Your task to perform on an android device: toggle notification dots Image 0: 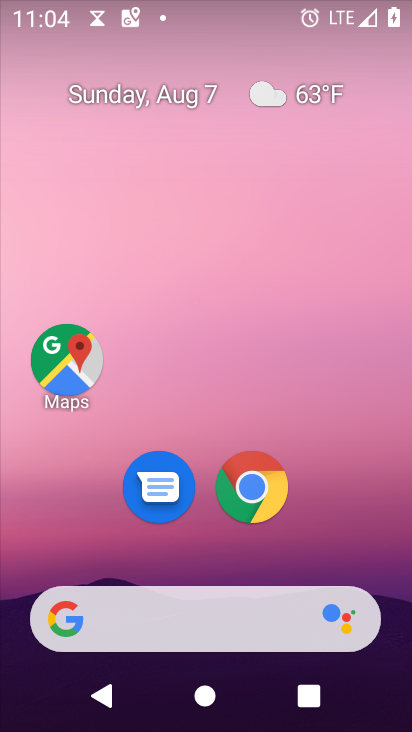
Step 0: drag from (398, 701) to (385, 107)
Your task to perform on an android device: toggle notification dots Image 1: 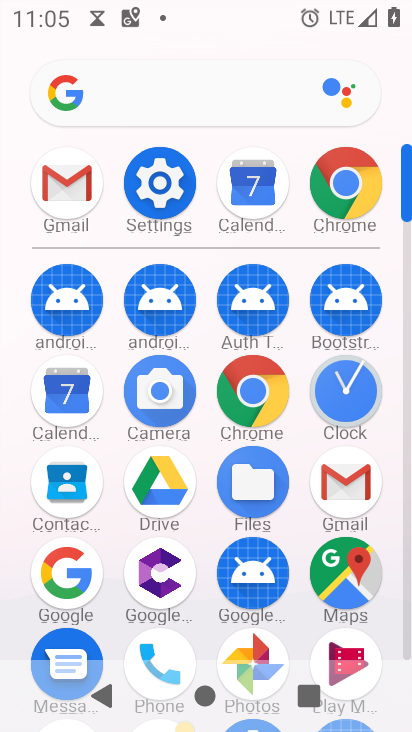
Step 1: click (152, 187)
Your task to perform on an android device: toggle notification dots Image 2: 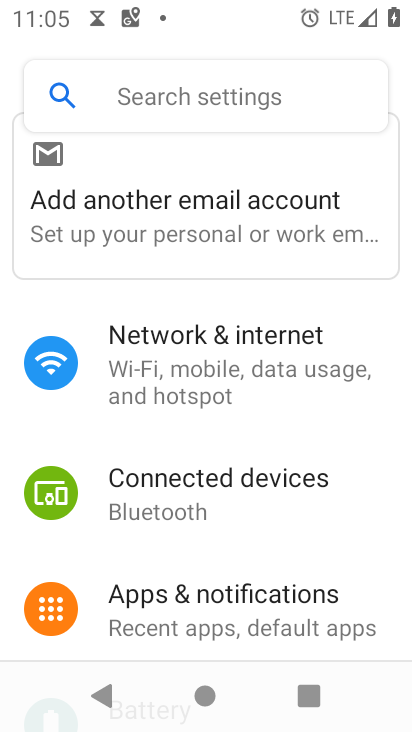
Step 2: drag from (361, 605) to (284, 104)
Your task to perform on an android device: toggle notification dots Image 3: 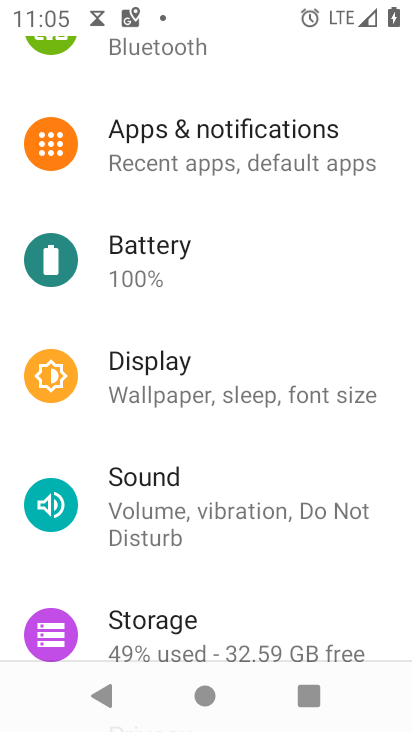
Step 3: click (204, 126)
Your task to perform on an android device: toggle notification dots Image 4: 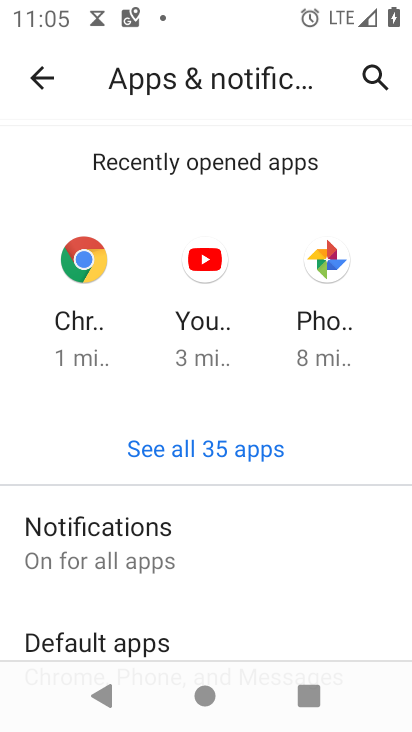
Step 4: drag from (255, 552) to (272, 175)
Your task to perform on an android device: toggle notification dots Image 5: 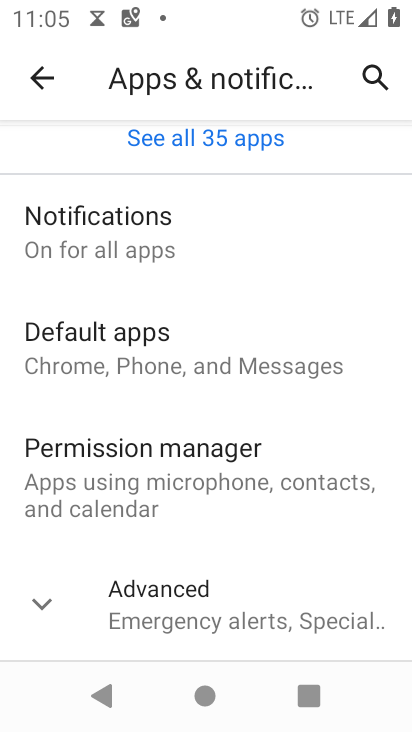
Step 5: click (29, 616)
Your task to perform on an android device: toggle notification dots Image 6: 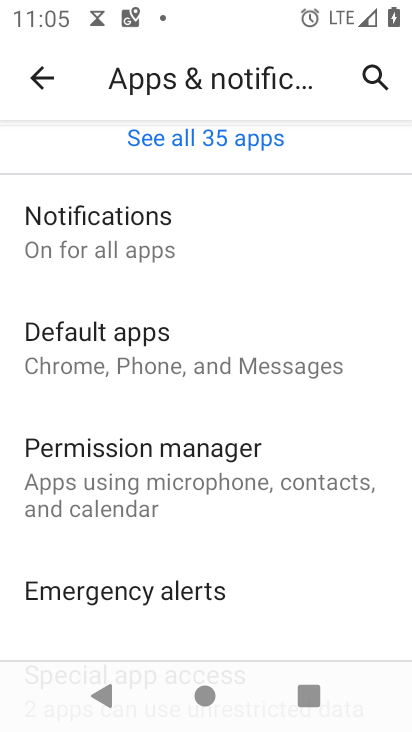
Step 6: drag from (264, 619) to (226, 147)
Your task to perform on an android device: toggle notification dots Image 7: 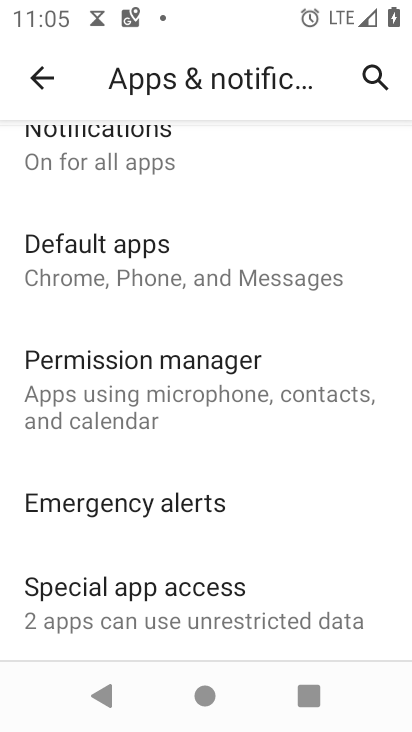
Step 7: drag from (265, 580) to (265, 261)
Your task to perform on an android device: toggle notification dots Image 8: 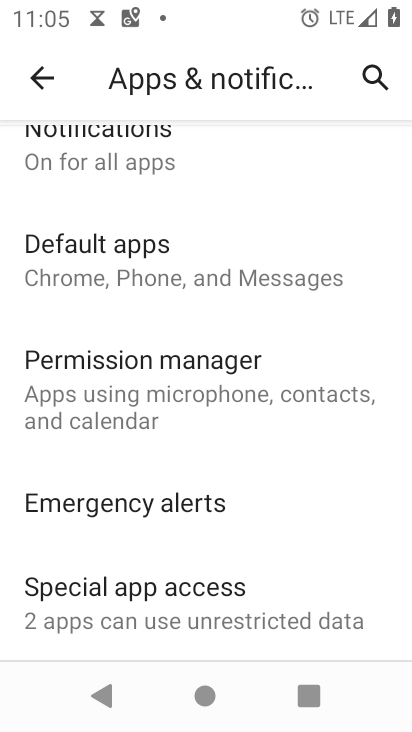
Step 8: drag from (245, 186) to (273, 509)
Your task to perform on an android device: toggle notification dots Image 9: 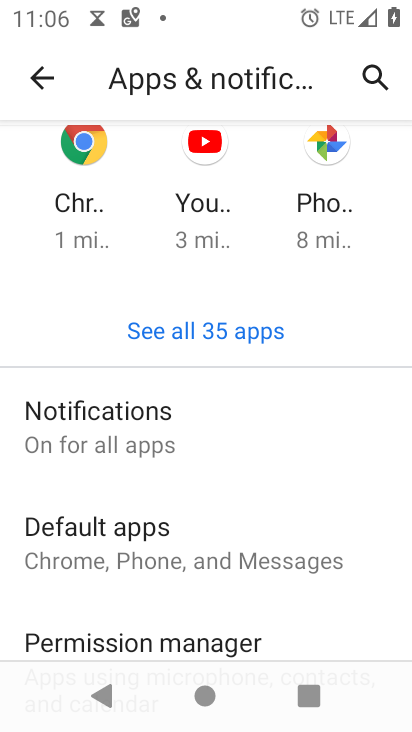
Step 9: click (104, 419)
Your task to perform on an android device: toggle notification dots Image 10: 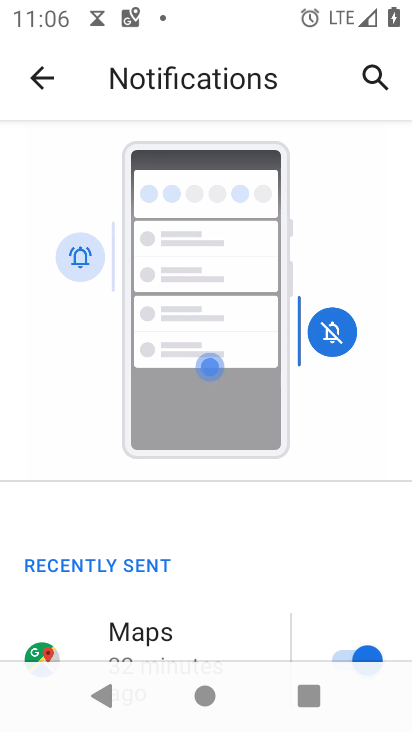
Step 10: drag from (251, 597) to (265, 125)
Your task to perform on an android device: toggle notification dots Image 11: 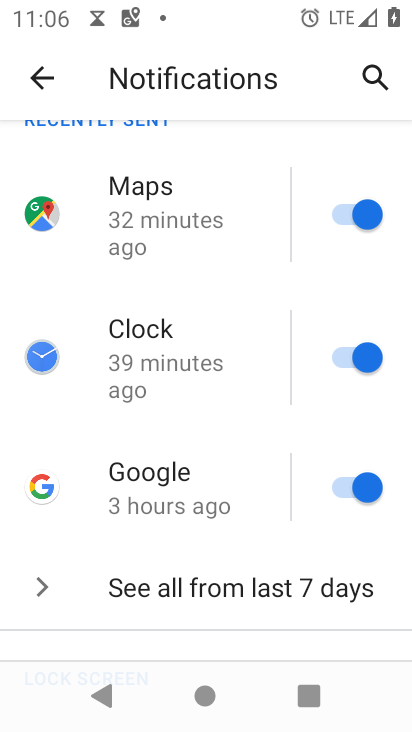
Step 11: drag from (271, 543) to (227, 164)
Your task to perform on an android device: toggle notification dots Image 12: 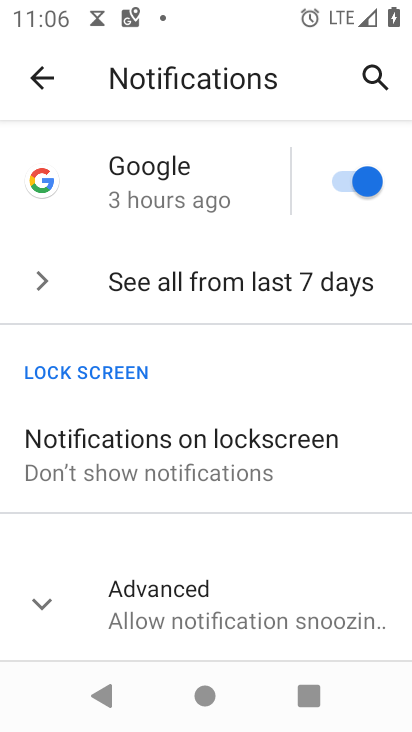
Step 12: click (33, 592)
Your task to perform on an android device: toggle notification dots Image 13: 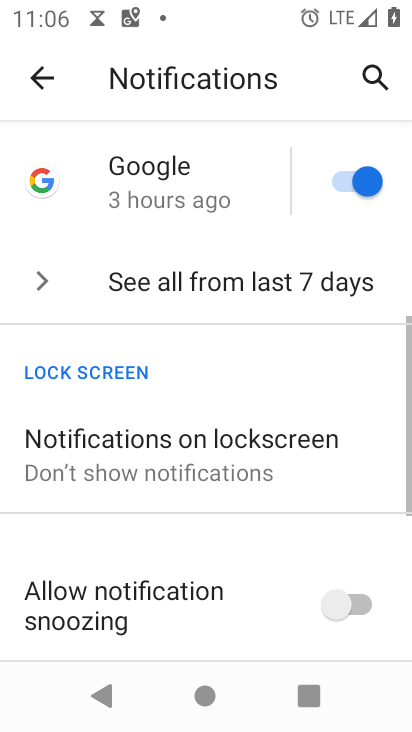
Step 13: click (244, 172)
Your task to perform on an android device: toggle notification dots Image 14: 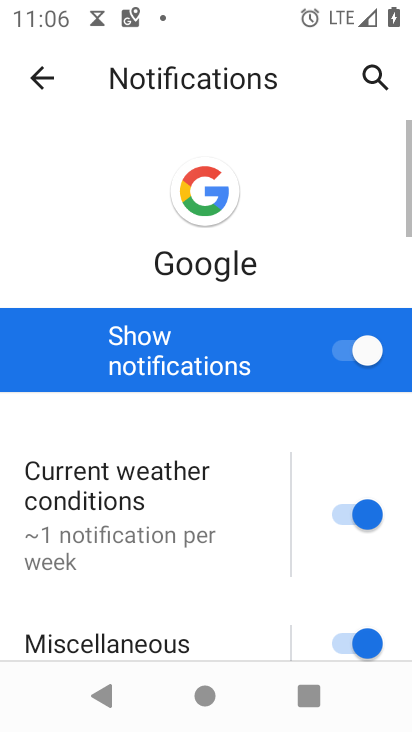
Step 14: drag from (243, 619) to (234, 423)
Your task to perform on an android device: toggle notification dots Image 15: 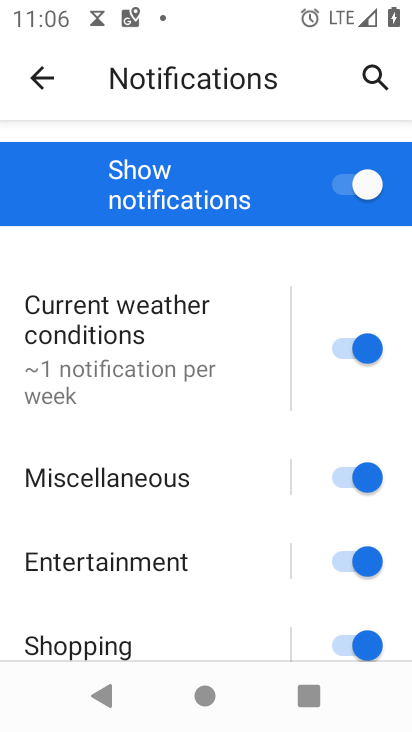
Step 15: click (49, 67)
Your task to perform on an android device: toggle notification dots Image 16: 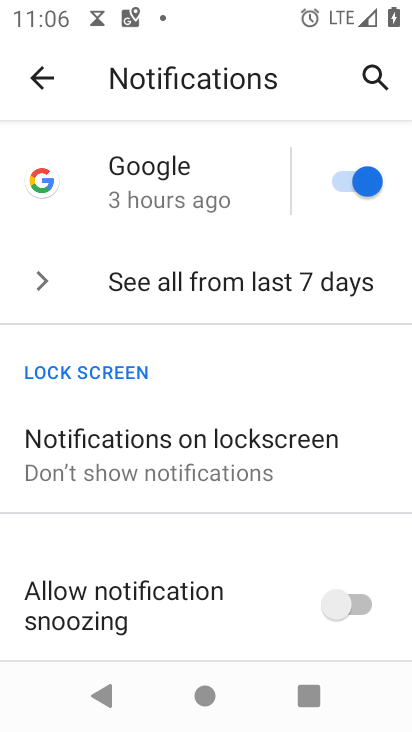
Step 16: drag from (250, 624) to (252, 178)
Your task to perform on an android device: toggle notification dots Image 17: 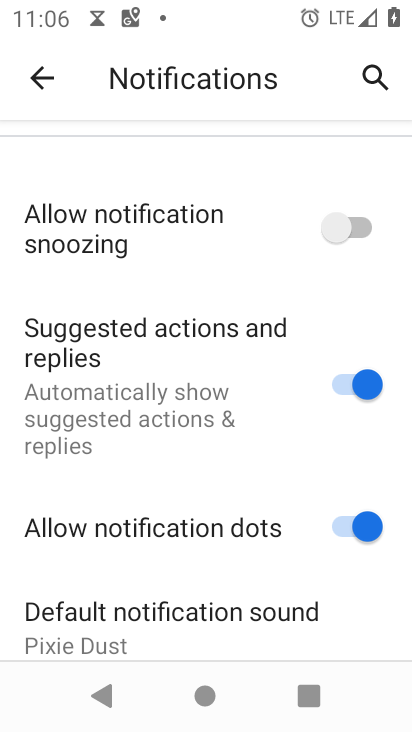
Step 17: click (333, 525)
Your task to perform on an android device: toggle notification dots Image 18: 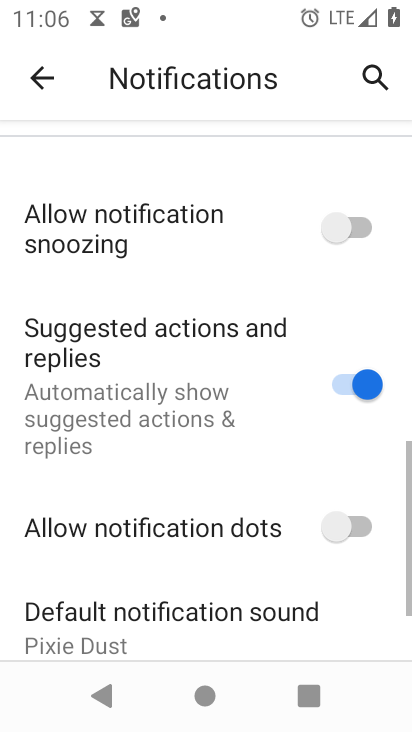
Step 18: task complete